Your task to perform on an android device: Open Reddit.com Image 0: 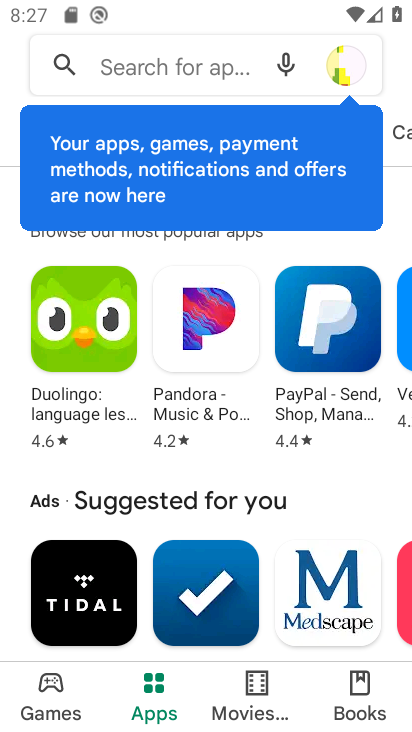
Step 0: press home button
Your task to perform on an android device: Open Reddit.com Image 1: 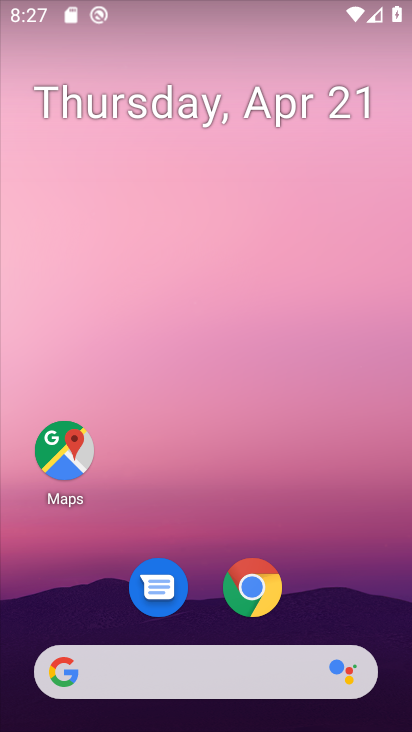
Step 1: click (247, 582)
Your task to perform on an android device: Open Reddit.com Image 2: 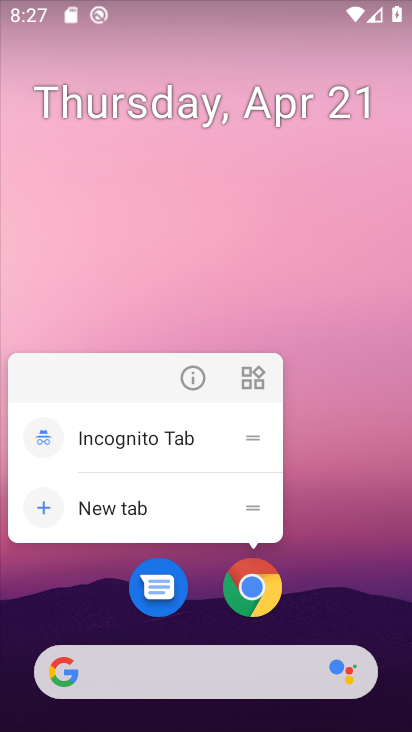
Step 2: click (247, 583)
Your task to perform on an android device: Open Reddit.com Image 3: 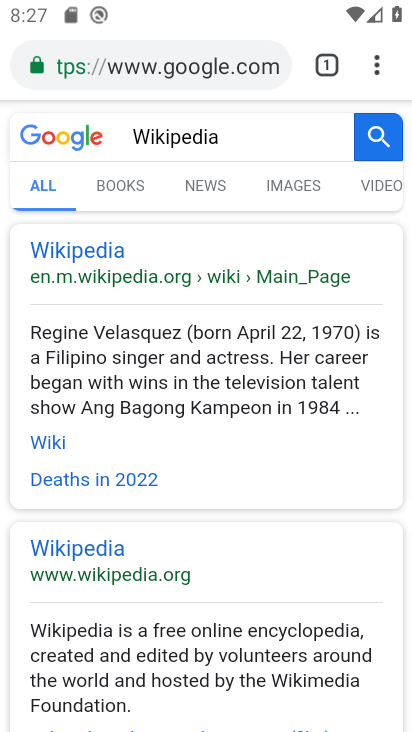
Step 3: click (375, 65)
Your task to perform on an android device: Open Reddit.com Image 4: 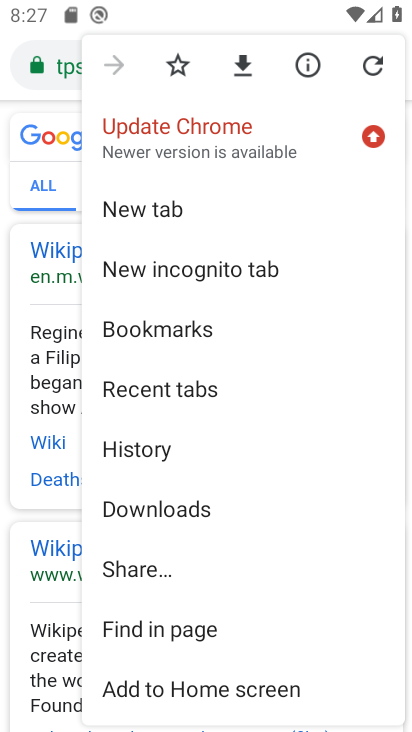
Step 4: drag from (341, 664) to (300, 278)
Your task to perform on an android device: Open Reddit.com Image 5: 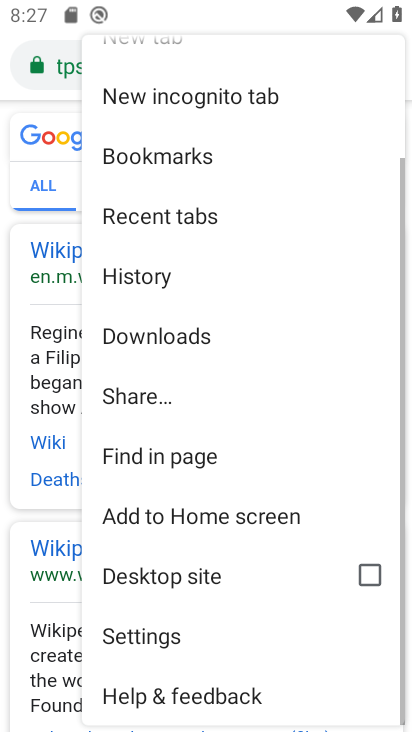
Step 5: drag from (300, 645) to (303, 270)
Your task to perform on an android device: Open Reddit.com Image 6: 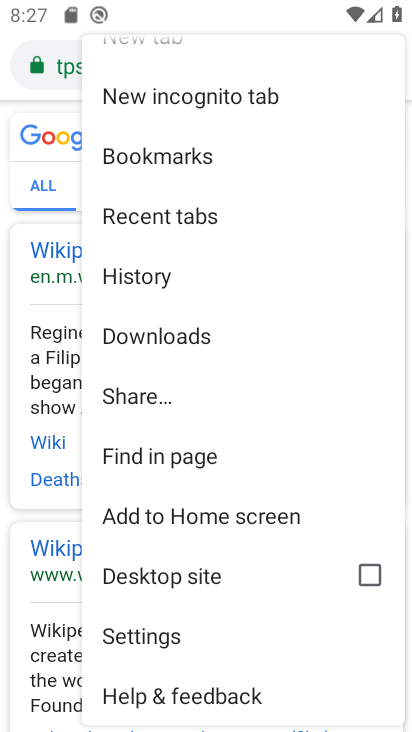
Step 6: click (123, 643)
Your task to perform on an android device: Open Reddit.com Image 7: 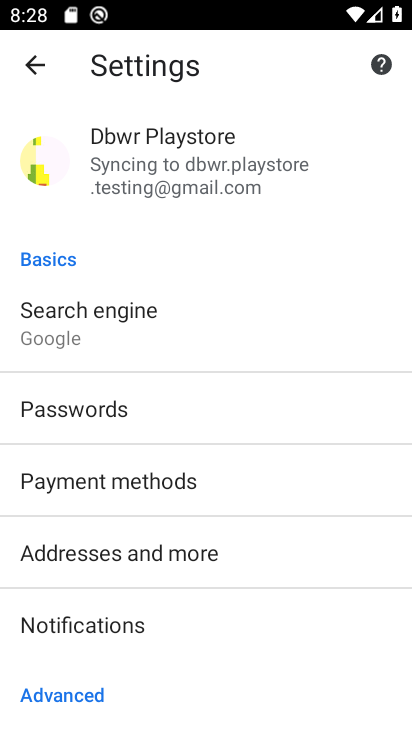
Step 7: click (29, 66)
Your task to perform on an android device: Open Reddit.com Image 8: 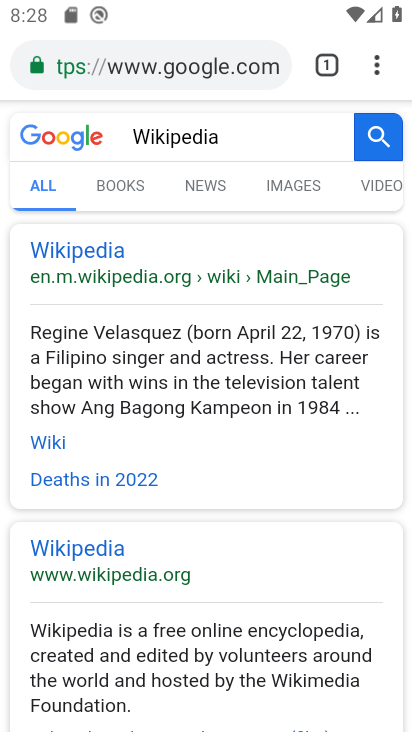
Step 8: click (293, 65)
Your task to perform on an android device: Open Reddit.com Image 9: 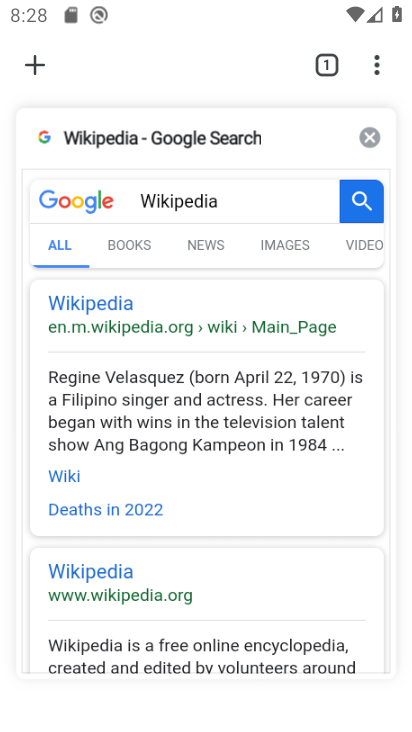
Step 9: click (217, 145)
Your task to perform on an android device: Open Reddit.com Image 10: 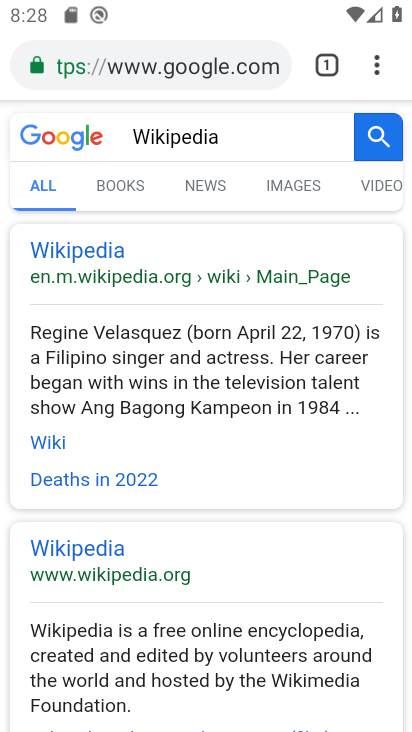
Step 10: click (271, 59)
Your task to perform on an android device: Open Reddit.com Image 11: 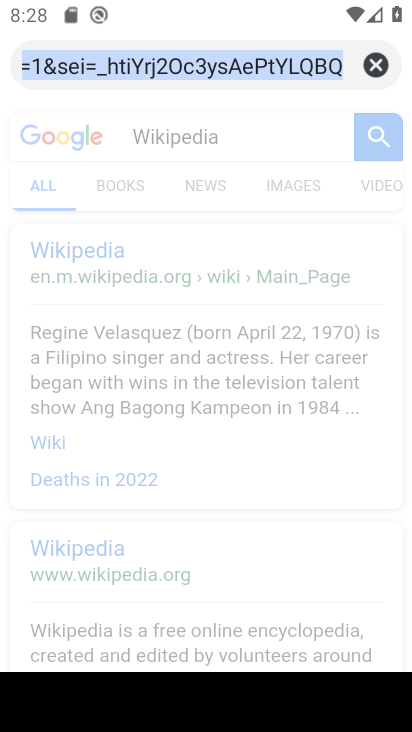
Step 11: click (379, 66)
Your task to perform on an android device: Open Reddit.com Image 12: 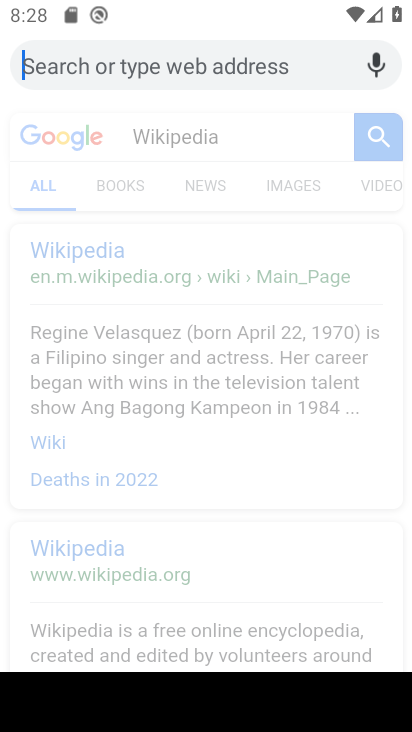
Step 12: type "Reddit.com"
Your task to perform on an android device: Open Reddit.com Image 13: 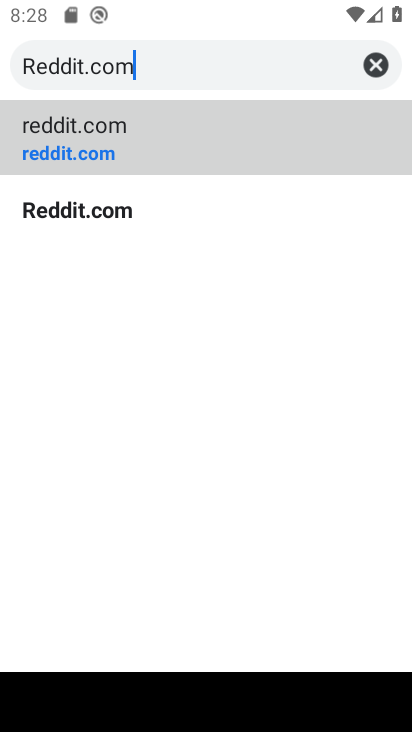
Step 13: click (48, 143)
Your task to perform on an android device: Open Reddit.com Image 14: 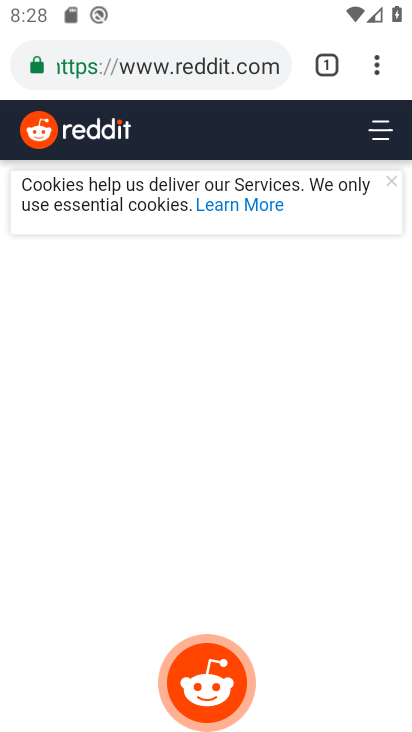
Step 14: task complete